Your task to perform on an android device: stop showing notifications on the lock screen Image 0: 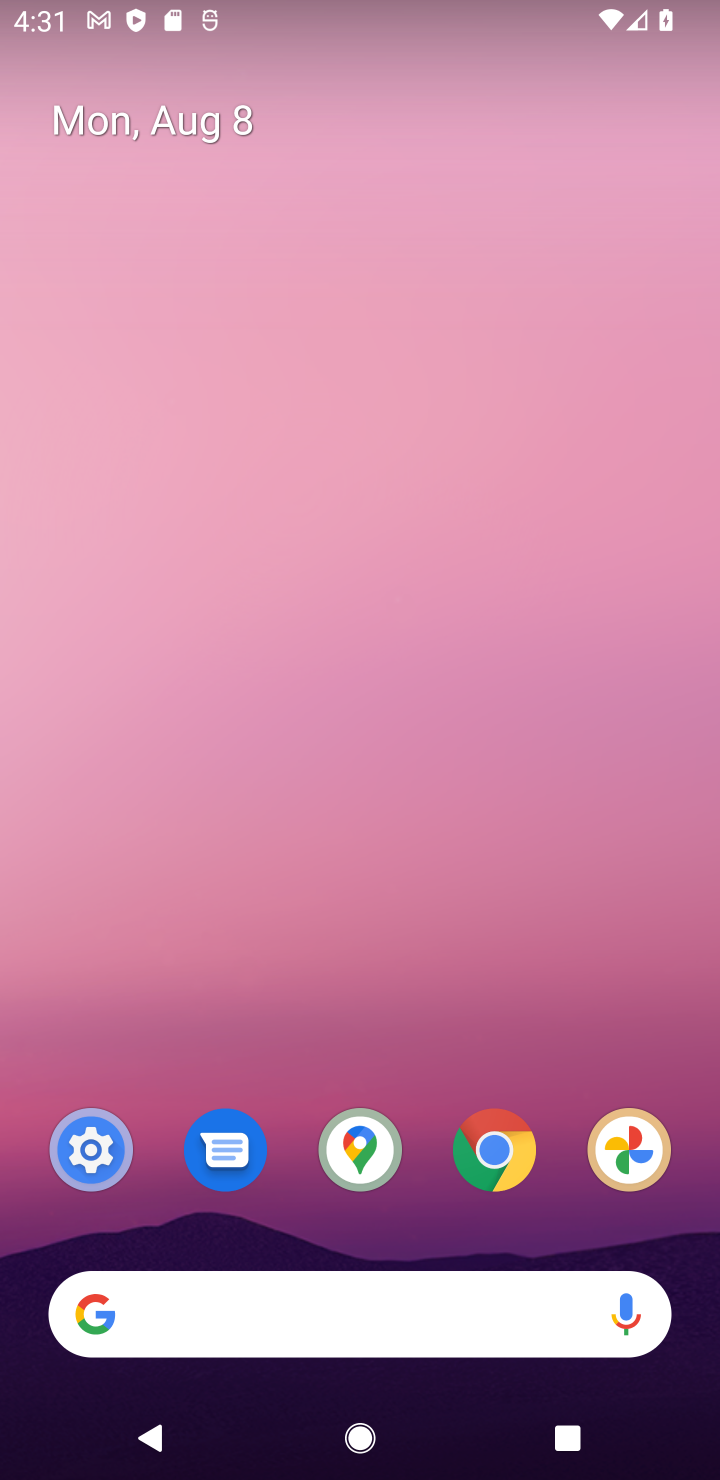
Step 0: click (87, 1183)
Your task to perform on an android device: stop showing notifications on the lock screen Image 1: 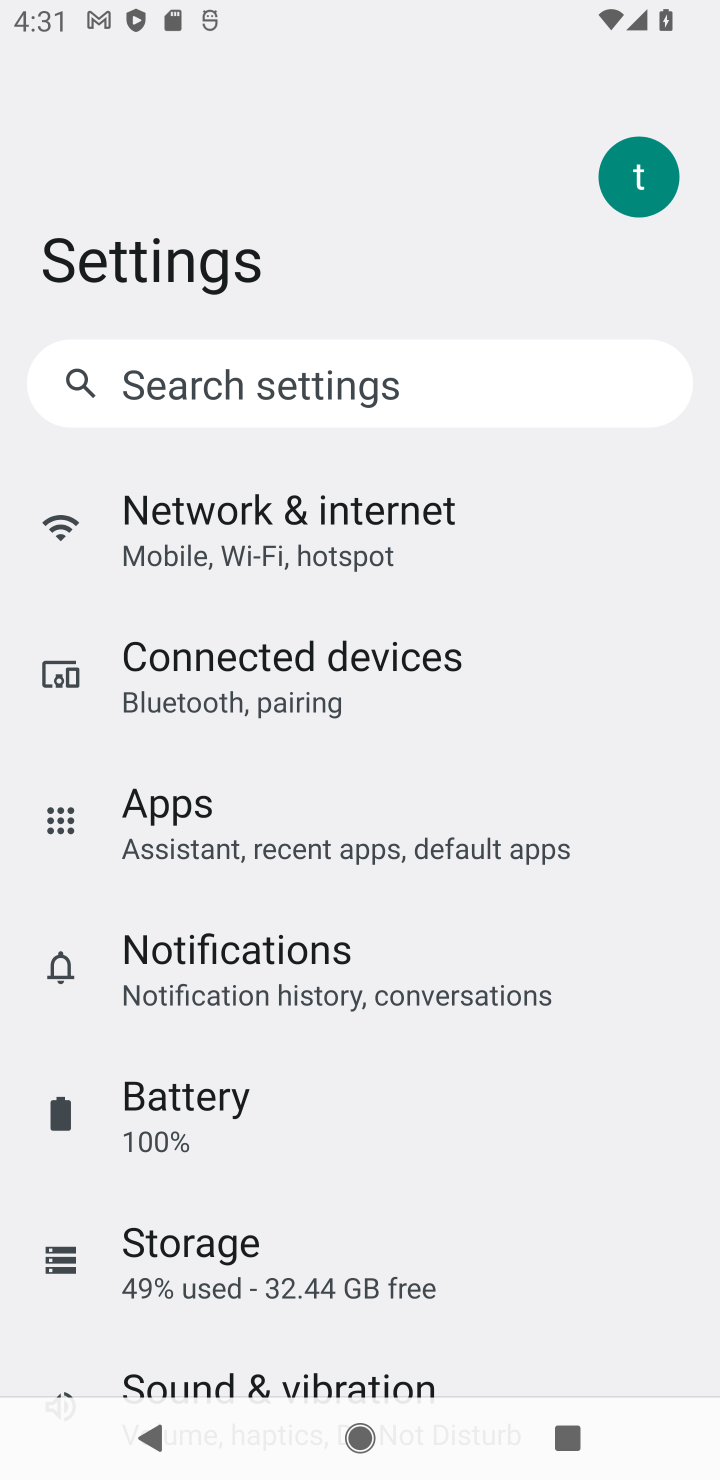
Step 1: click (349, 1015)
Your task to perform on an android device: stop showing notifications on the lock screen Image 2: 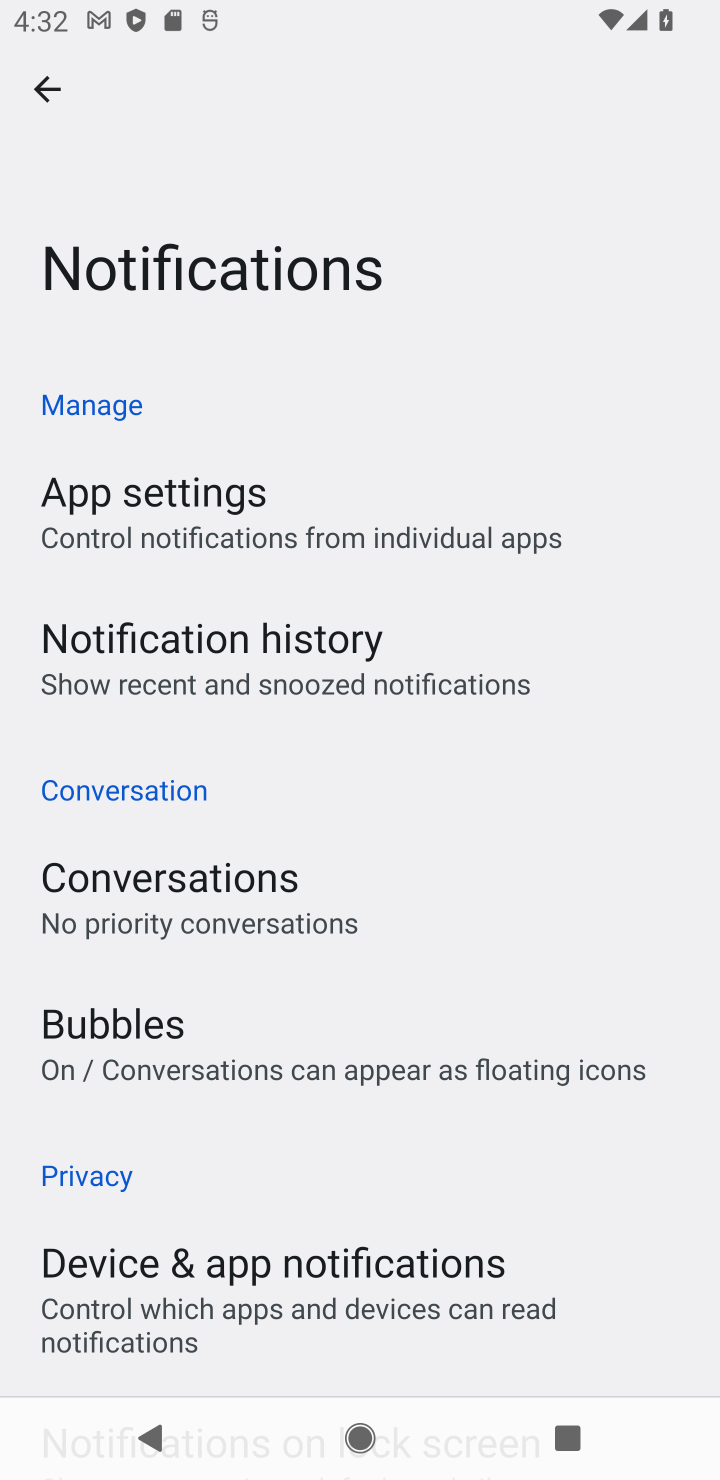
Step 2: click (354, 1284)
Your task to perform on an android device: stop showing notifications on the lock screen Image 3: 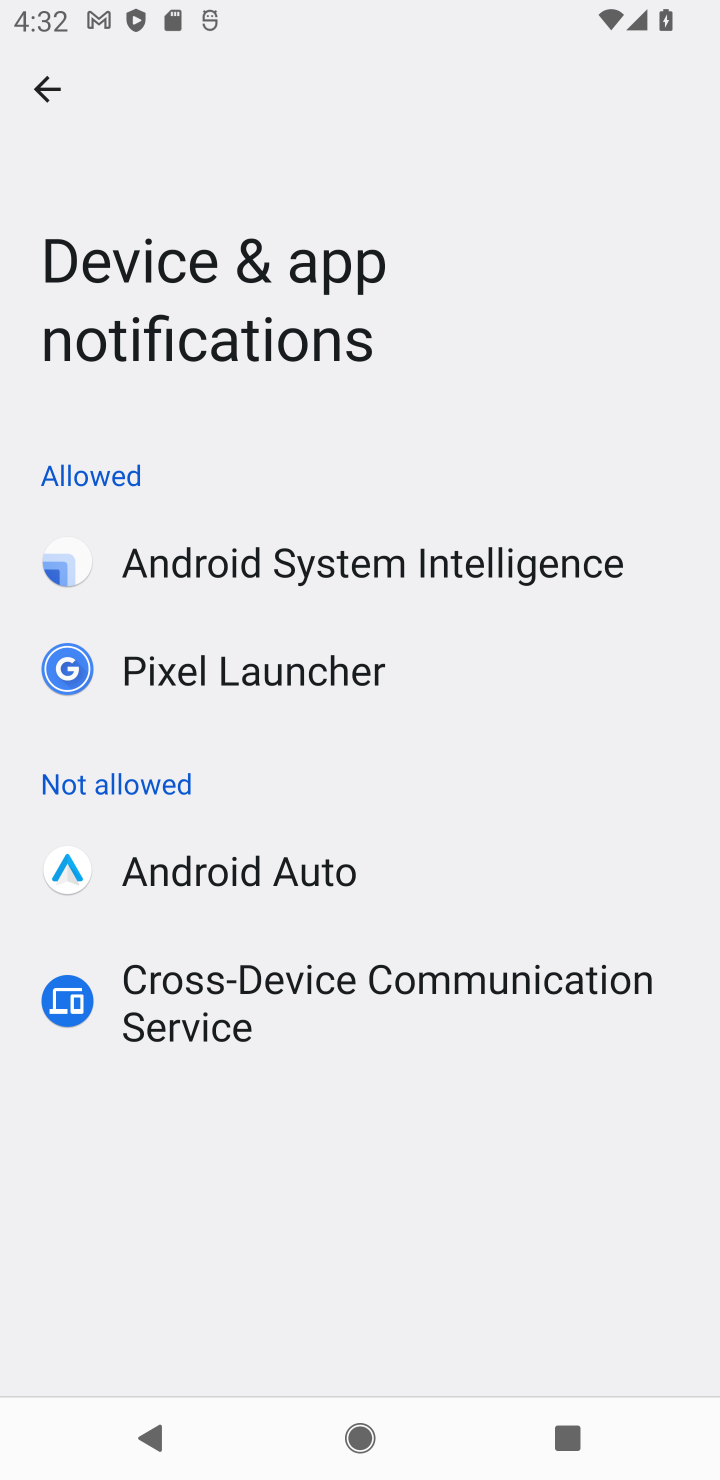
Step 3: task complete